Your task to perform on an android device: Open the stopwatch Image 0: 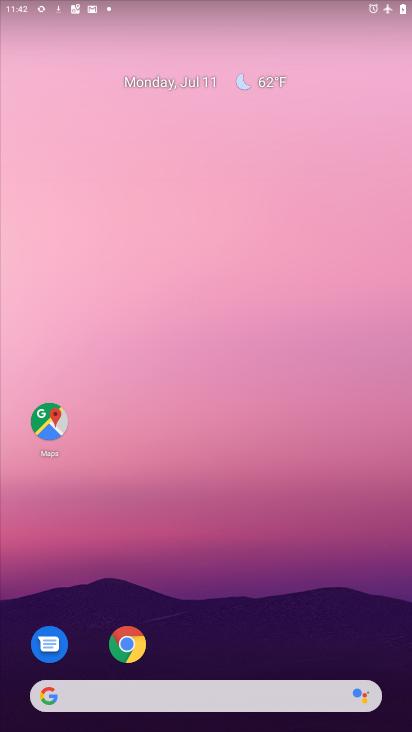
Step 0: drag from (193, 656) to (145, 13)
Your task to perform on an android device: Open the stopwatch Image 1: 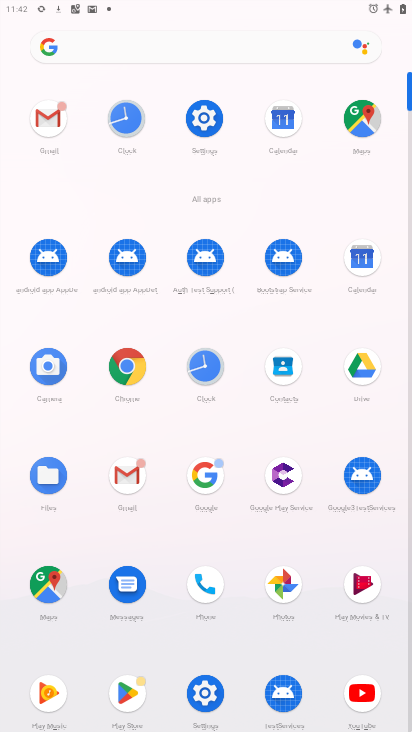
Step 1: click (211, 386)
Your task to perform on an android device: Open the stopwatch Image 2: 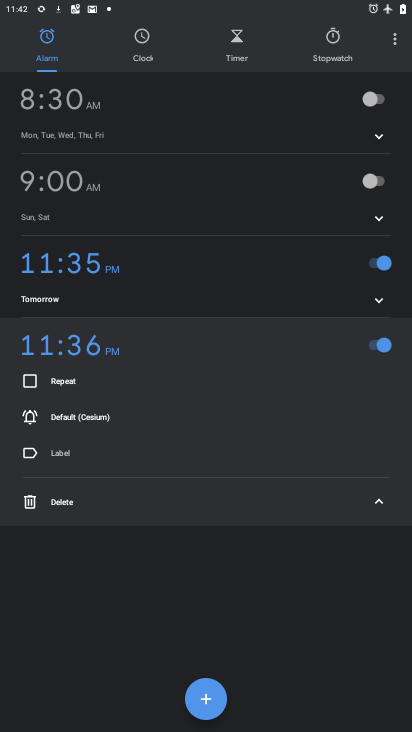
Step 2: click (344, 46)
Your task to perform on an android device: Open the stopwatch Image 3: 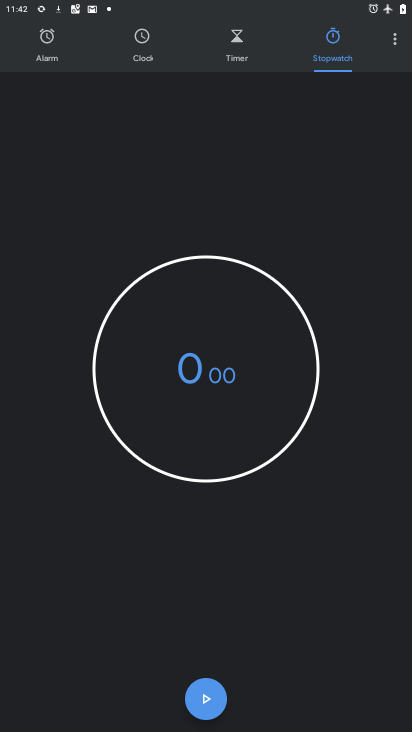
Step 3: task complete